Your task to perform on an android device: What's on my calendar tomorrow? Image 0: 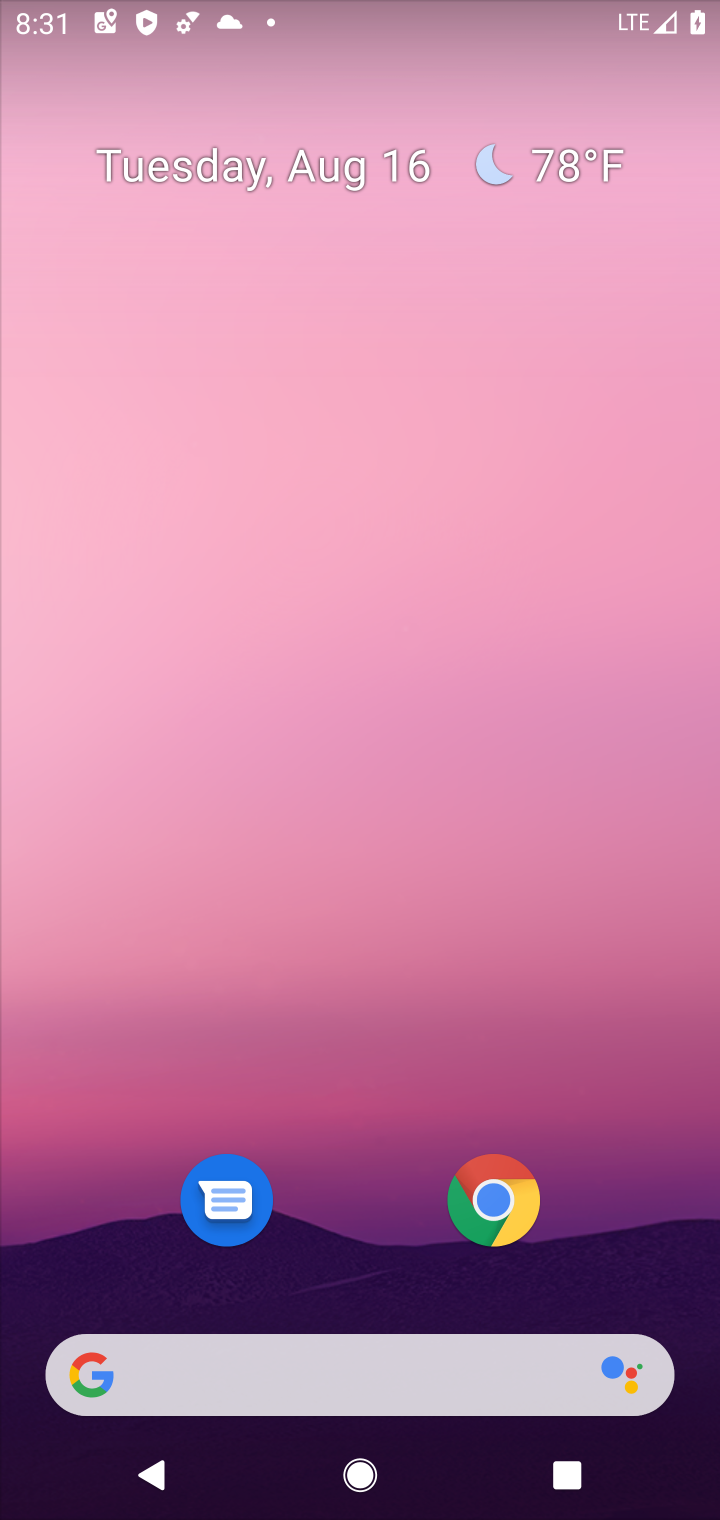
Step 0: drag from (664, 1280) to (535, 177)
Your task to perform on an android device: What's on my calendar tomorrow? Image 1: 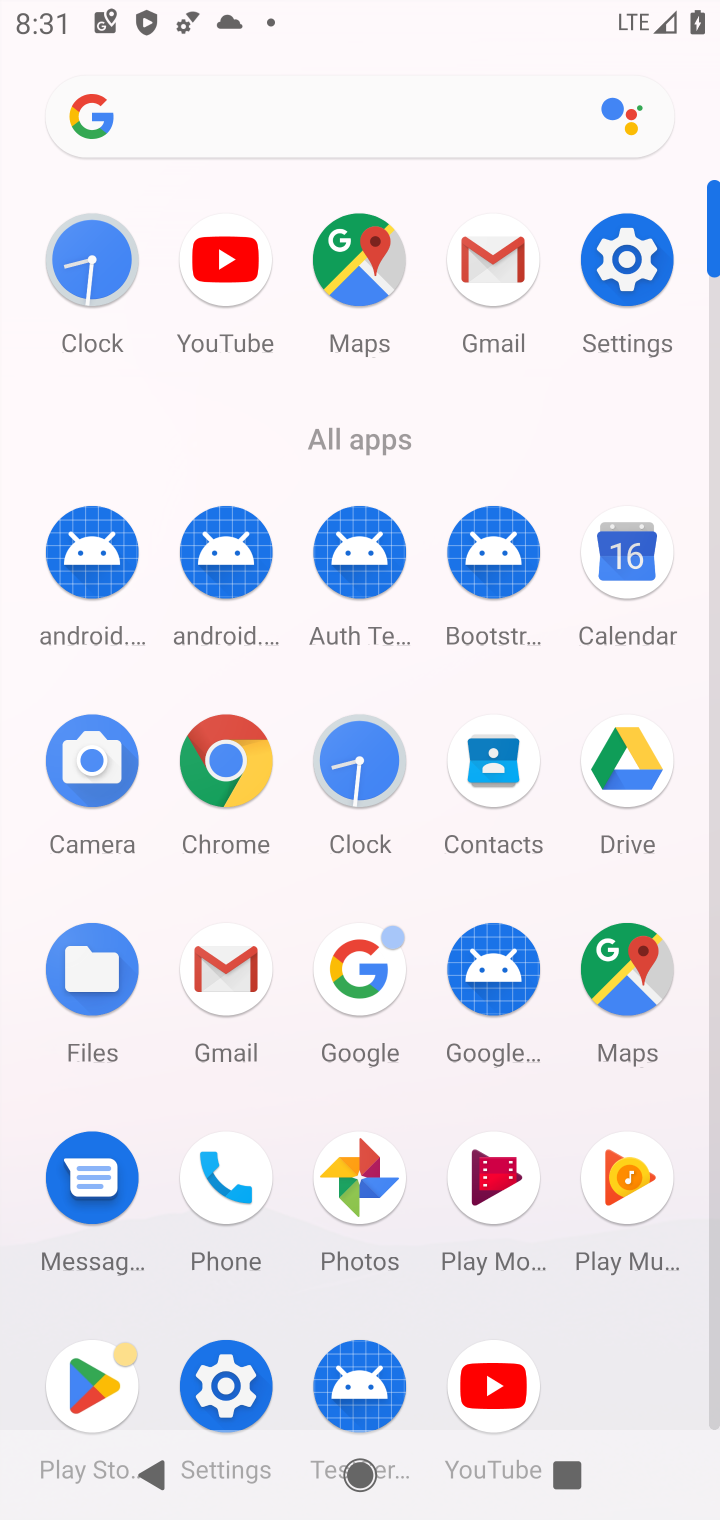
Step 1: click (625, 558)
Your task to perform on an android device: What's on my calendar tomorrow? Image 2: 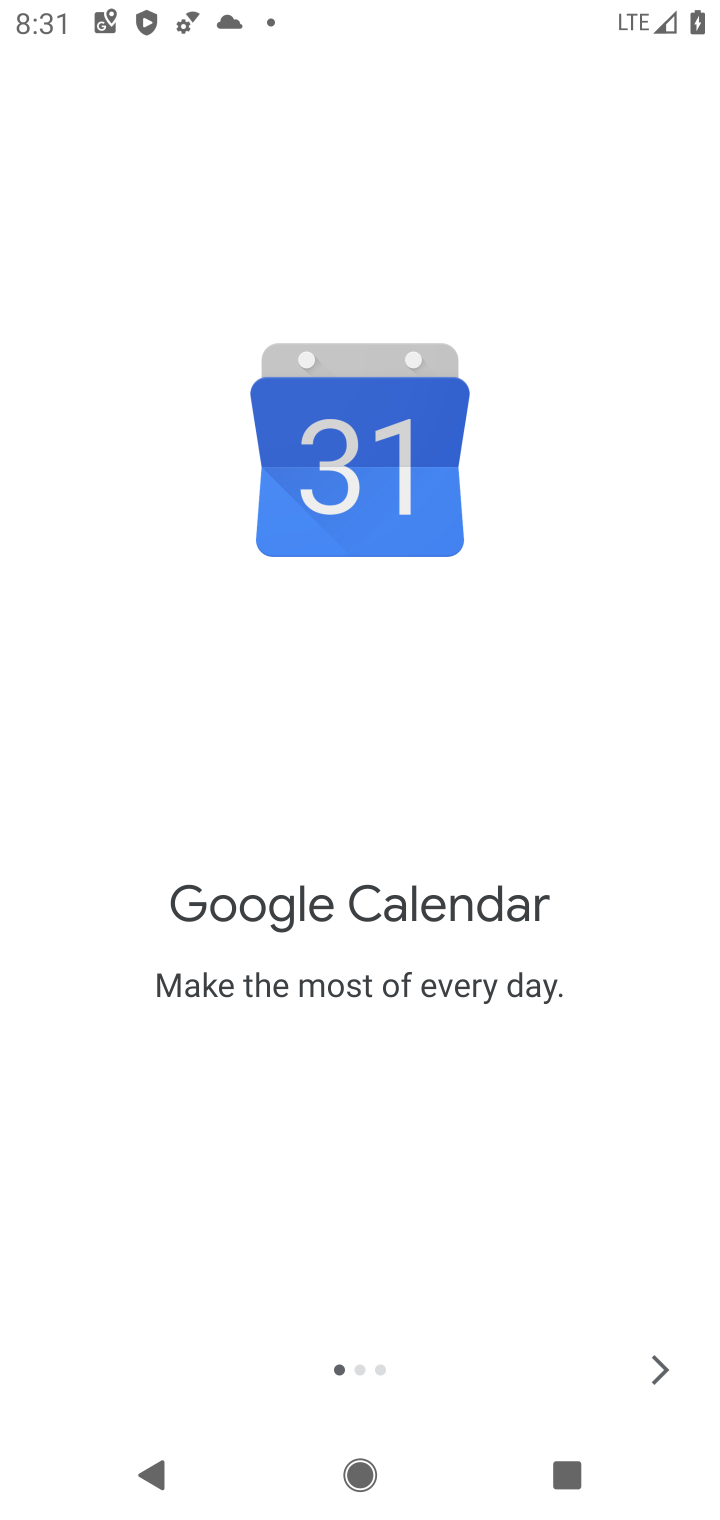
Step 2: click (652, 1367)
Your task to perform on an android device: What's on my calendar tomorrow? Image 3: 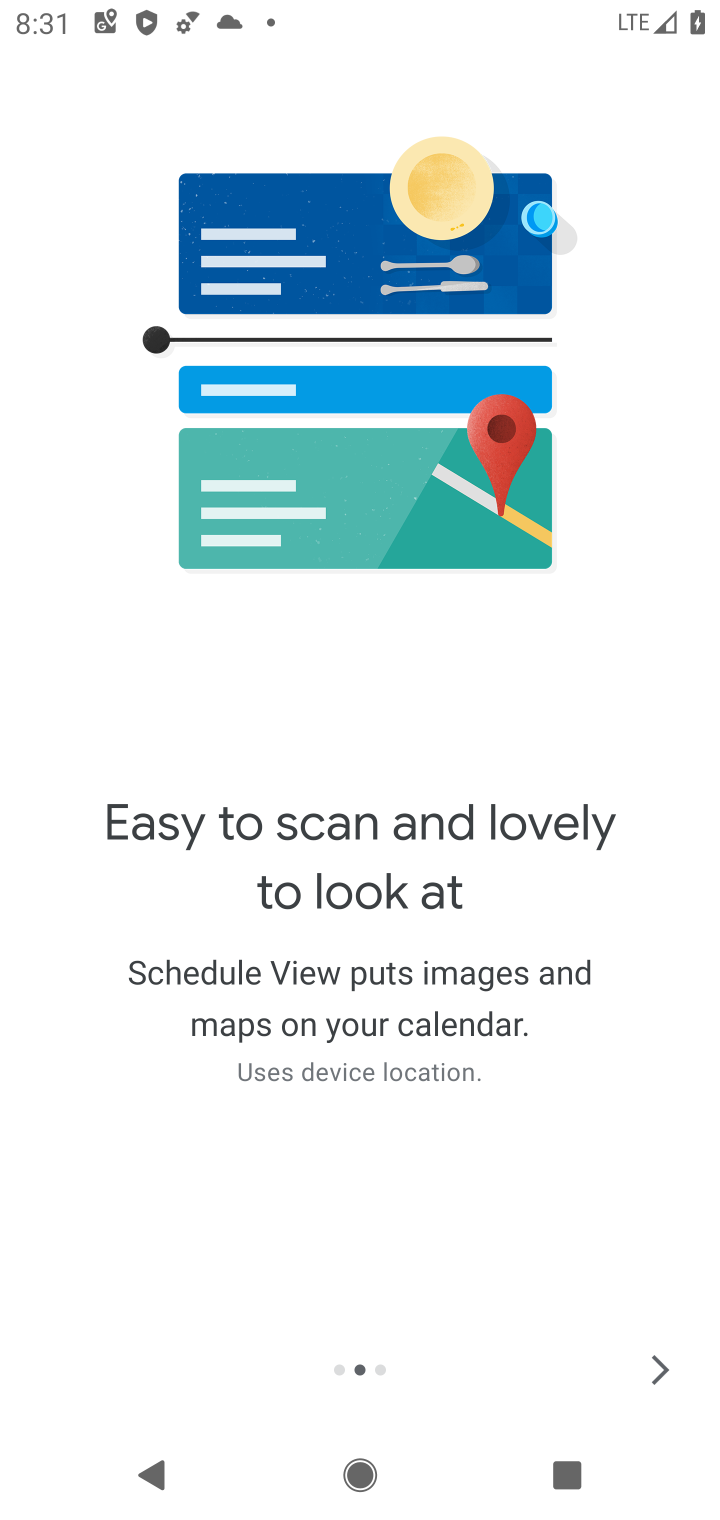
Step 3: click (652, 1367)
Your task to perform on an android device: What's on my calendar tomorrow? Image 4: 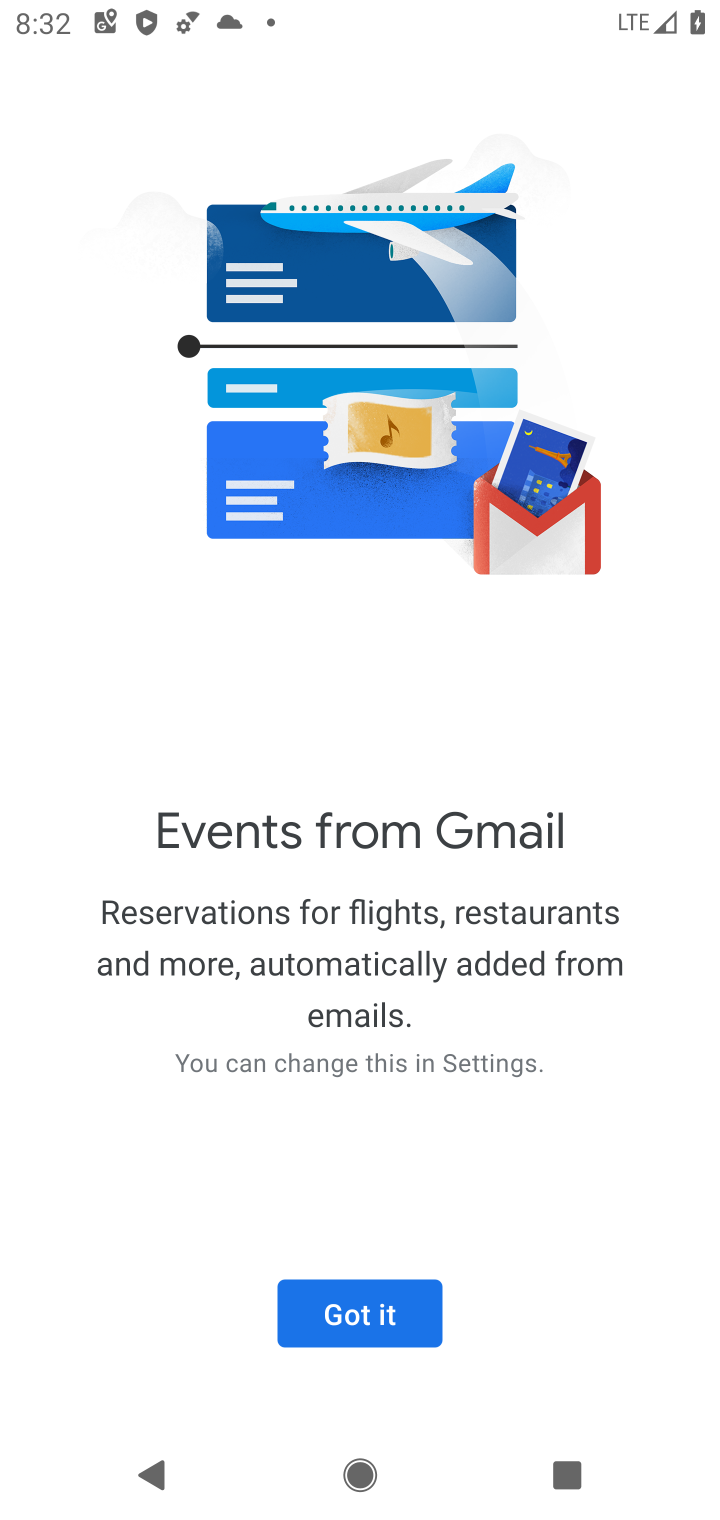
Step 4: click (354, 1311)
Your task to perform on an android device: What's on my calendar tomorrow? Image 5: 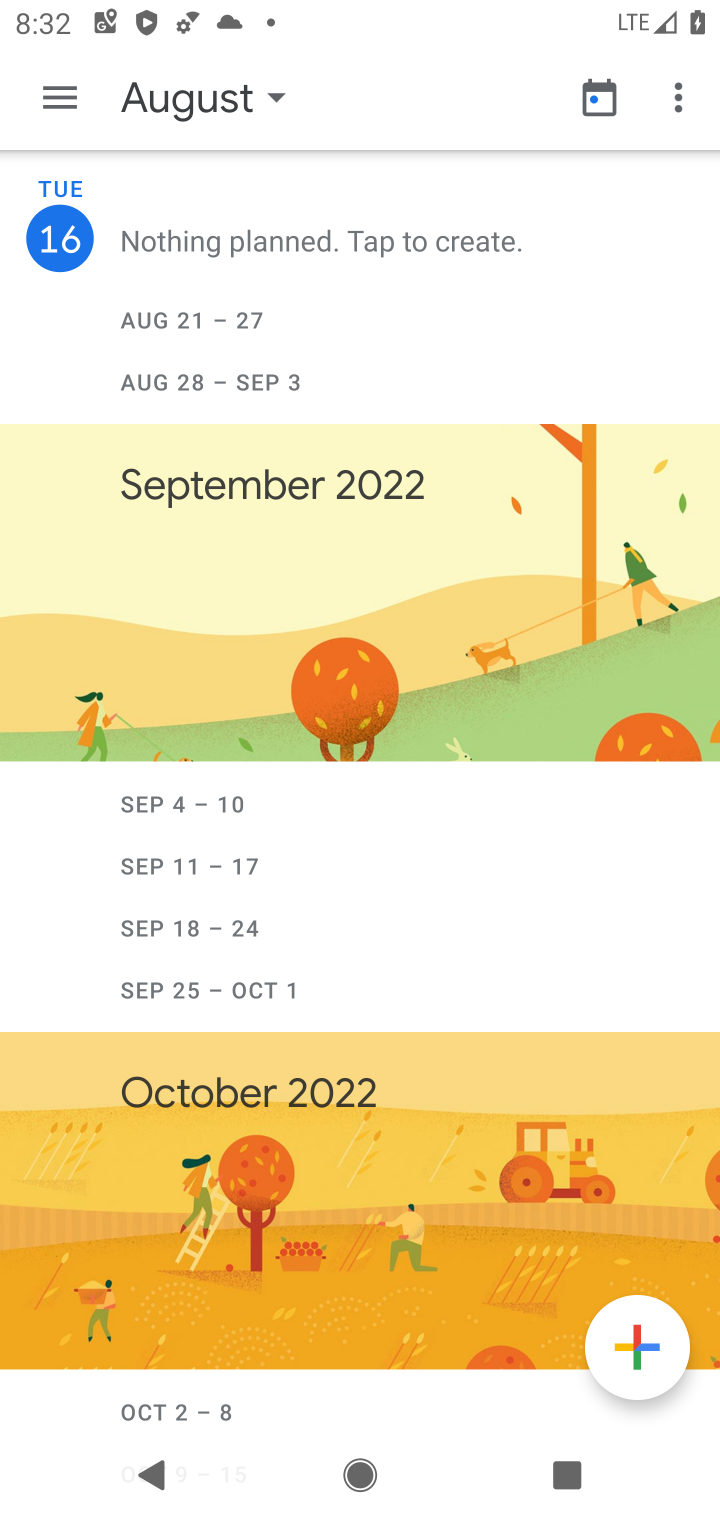
Step 5: click (47, 91)
Your task to perform on an android device: What's on my calendar tomorrow? Image 6: 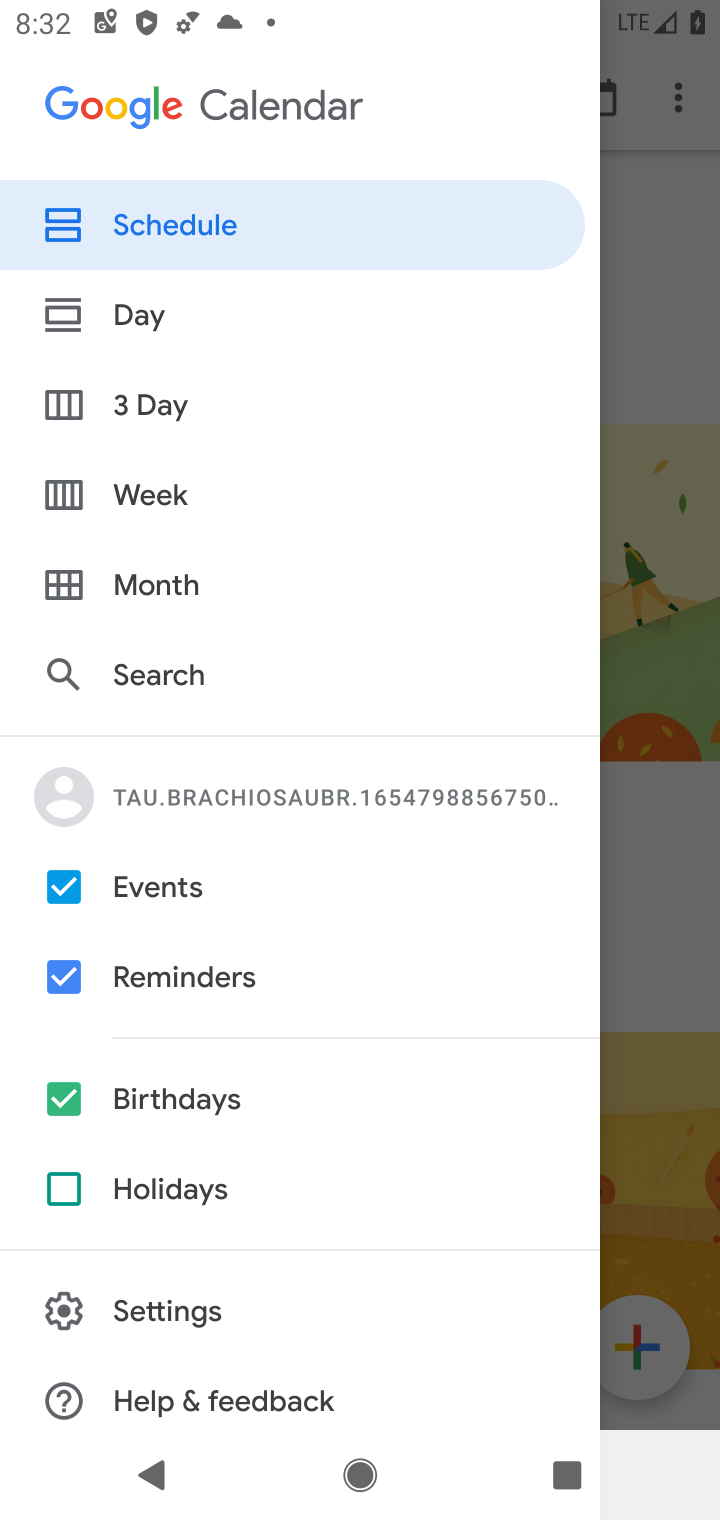
Step 6: click (137, 328)
Your task to perform on an android device: What's on my calendar tomorrow? Image 7: 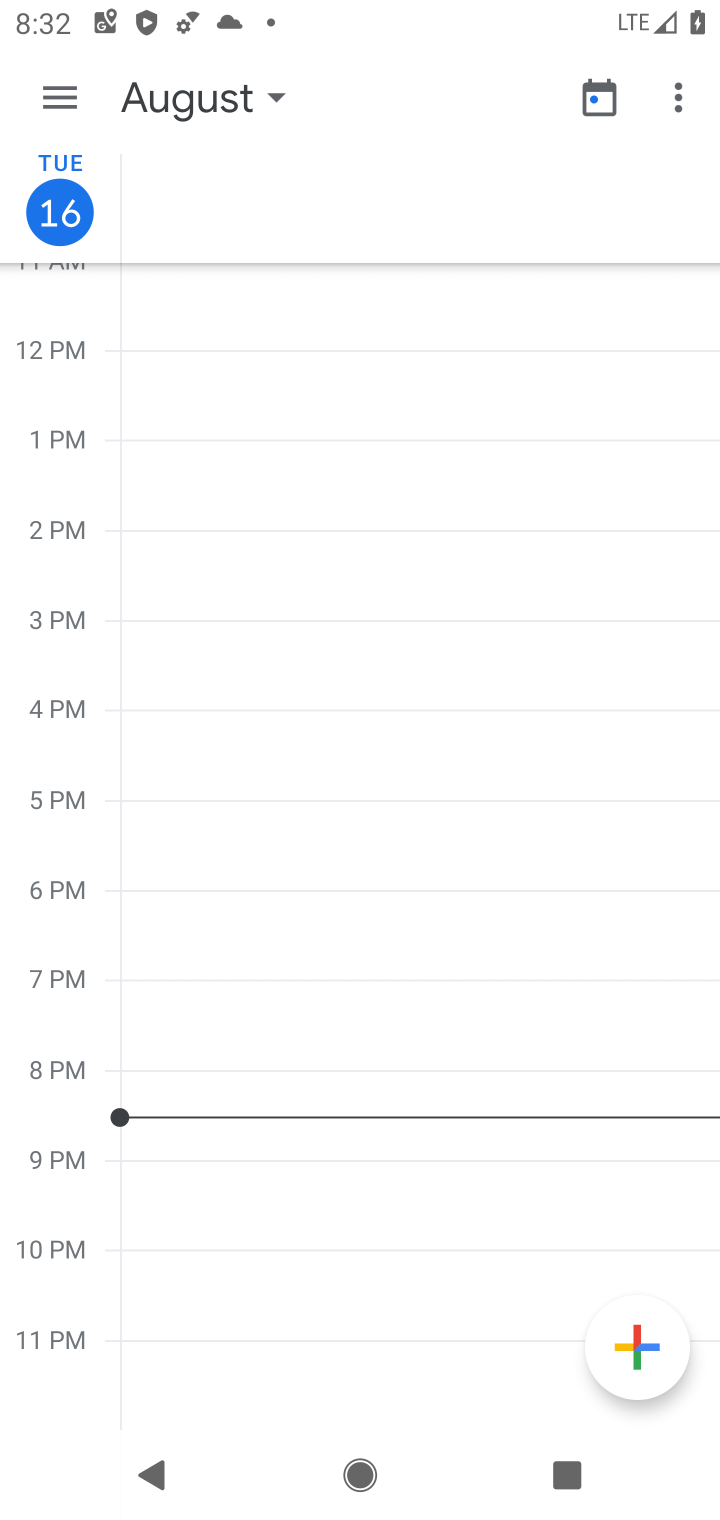
Step 7: click (265, 88)
Your task to perform on an android device: What's on my calendar tomorrow? Image 8: 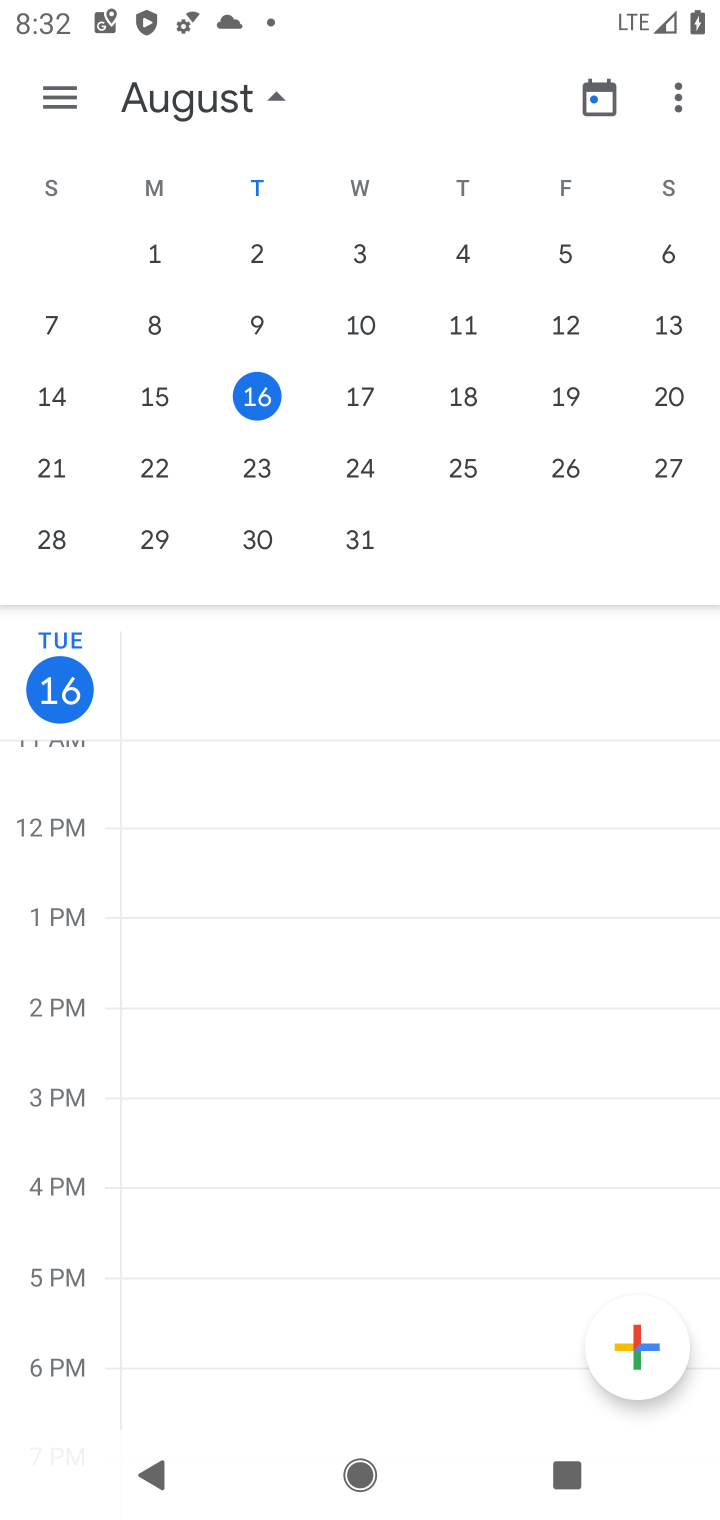
Step 8: click (351, 385)
Your task to perform on an android device: What's on my calendar tomorrow? Image 9: 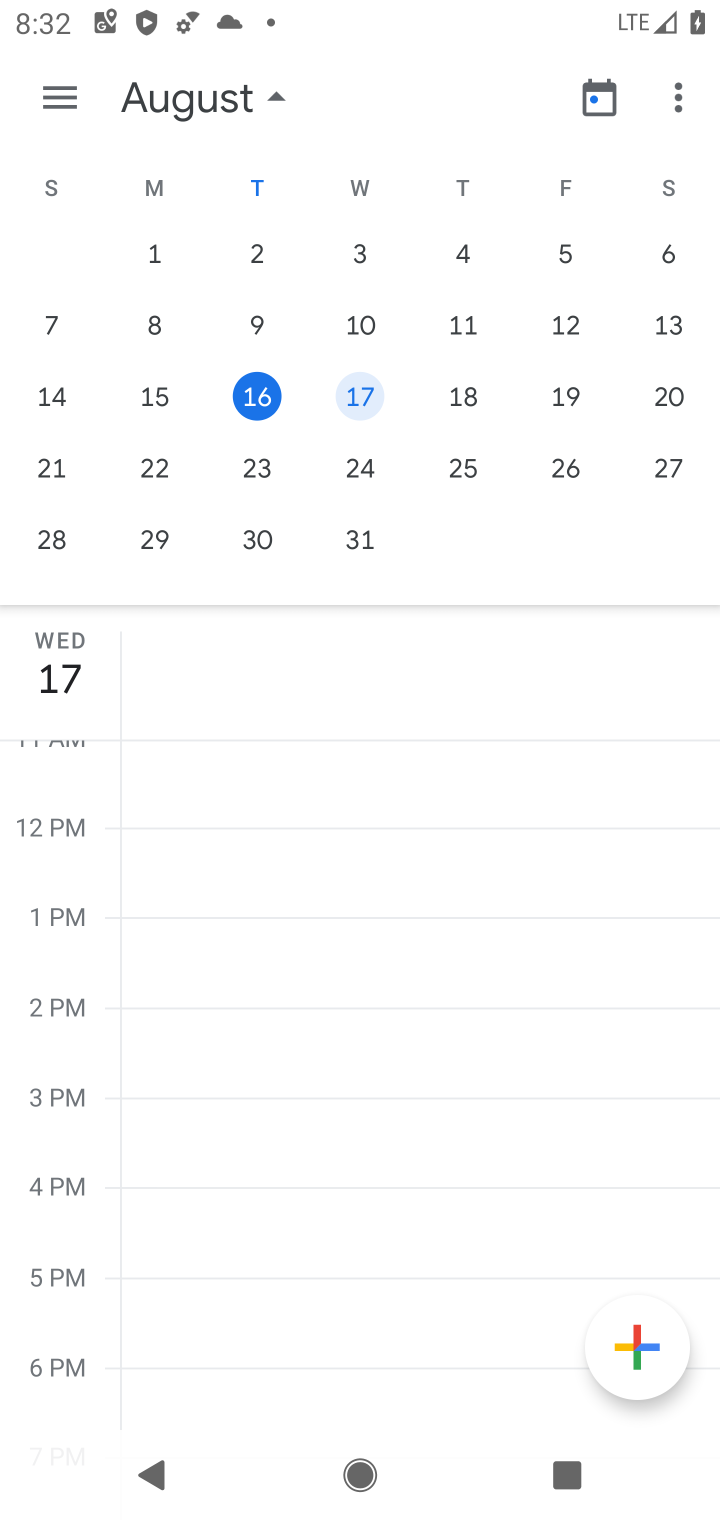
Step 9: task complete